Your task to perform on an android device: refresh tabs in the chrome app Image 0: 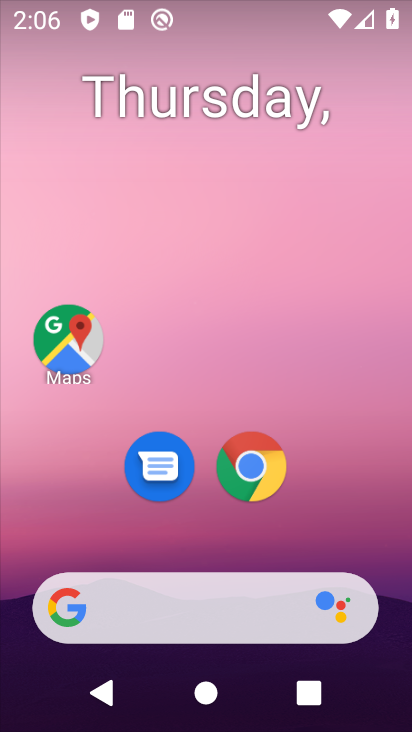
Step 0: click (83, 360)
Your task to perform on an android device: refresh tabs in the chrome app Image 1: 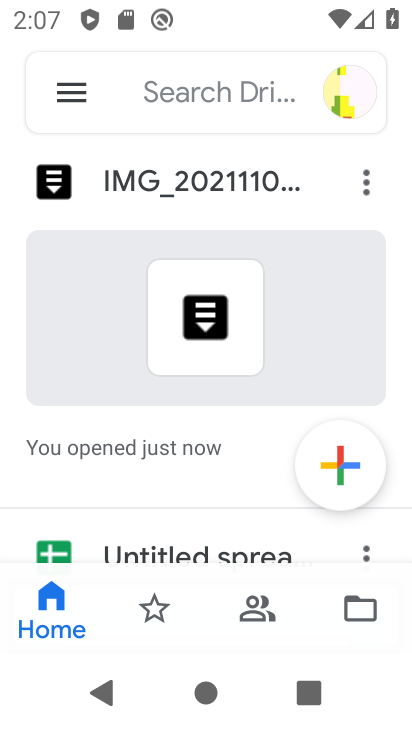
Step 1: press home button
Your task to perform on an android device: refresh tabs in the chrome app Image 2: 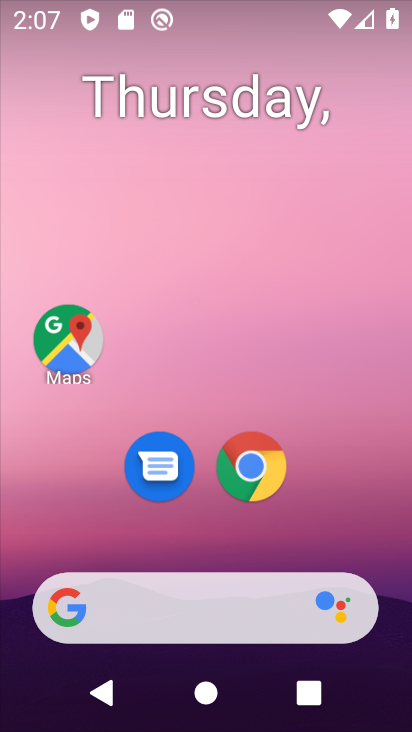
Step 2: click (239, 479)
Your task to perform on an android device: refresh tabs in the chrome app Image 3: 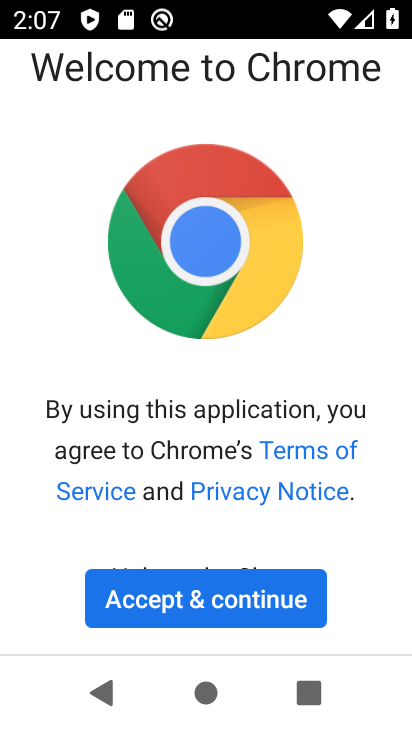
Step 3: click (220, 579)
Your task to perform on an android device: refresh tabs in the chrome app Image 4: 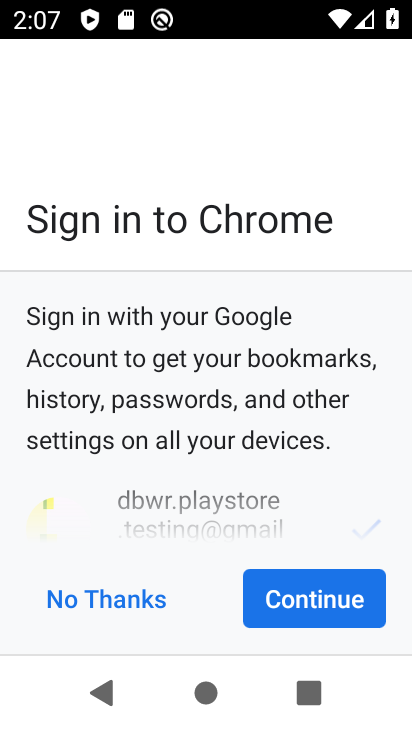
Step 4: click (291, 615)
Your task to perform on an android device: refresh tabs in the chrome app Image 5: 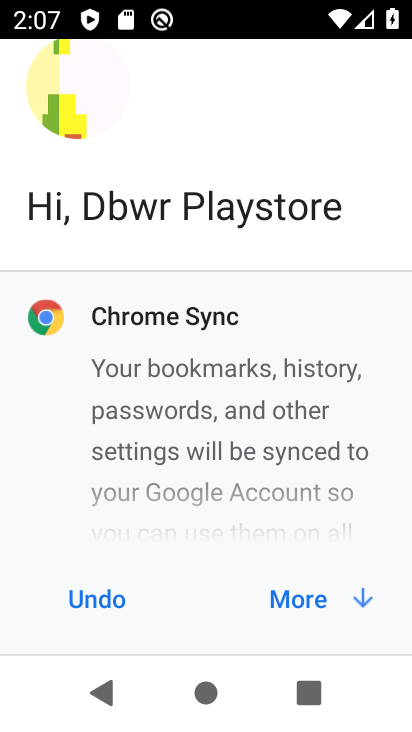
Step 5: click (304, 594)
Your task to perform on an android device: refresh tabs in the chrome app Image 6: 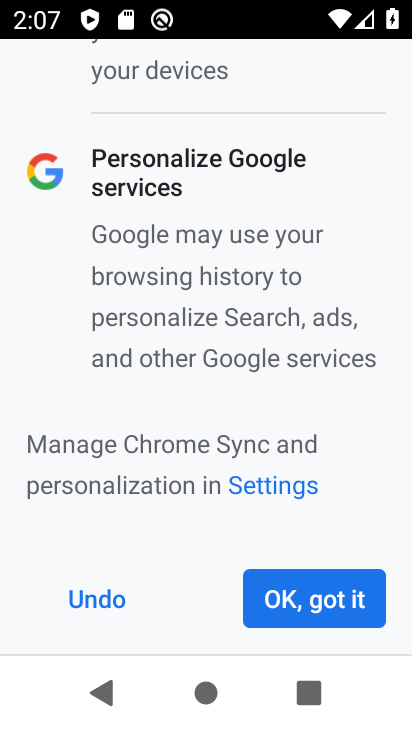
Step 6: click (304, 594)
Your task to perform on an android device: refresh tabs in the chrome app Image 7: 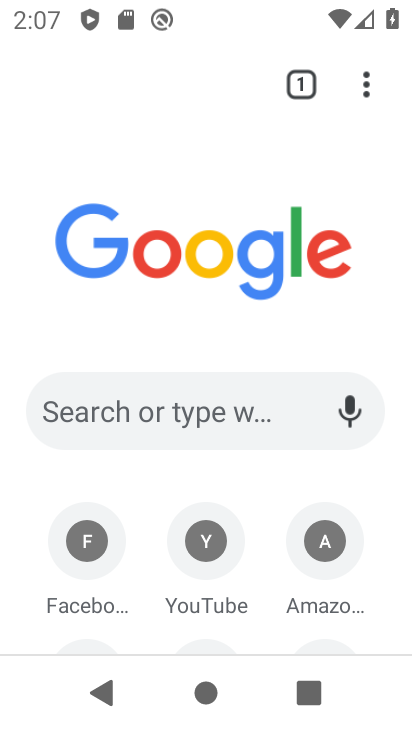
Step 7: click (363, 73)
Your task to perform on an android device: refresh tabs in the chrome app Image 8: 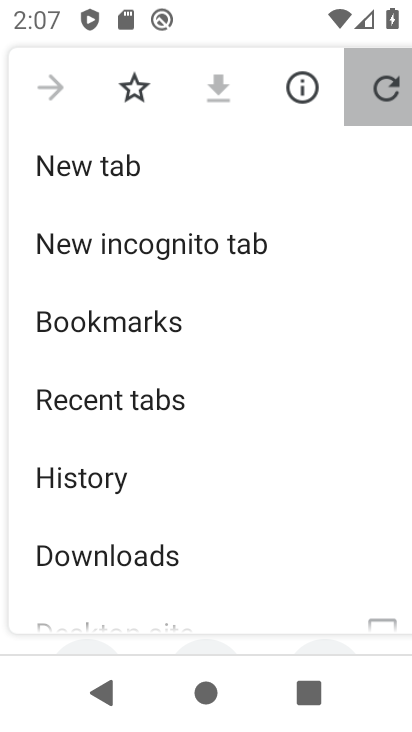
Step 8: click (379, 84)
Your task to perform on an android device: refresh tabs in the chrome app Image 9: 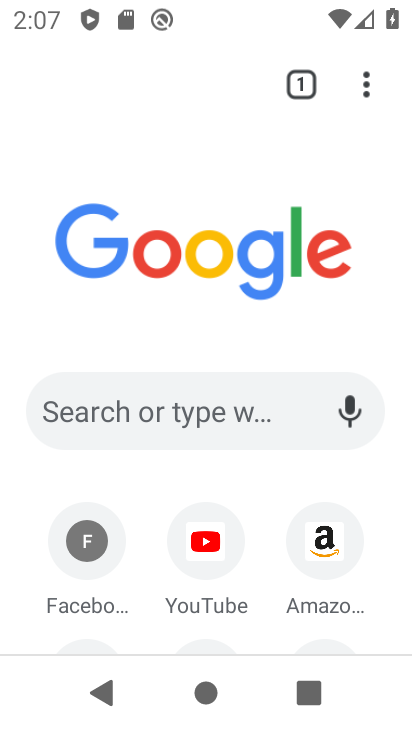
Step 9: task complete